Your task to perform on an android device: Set an alarm for 12pm Image 0: 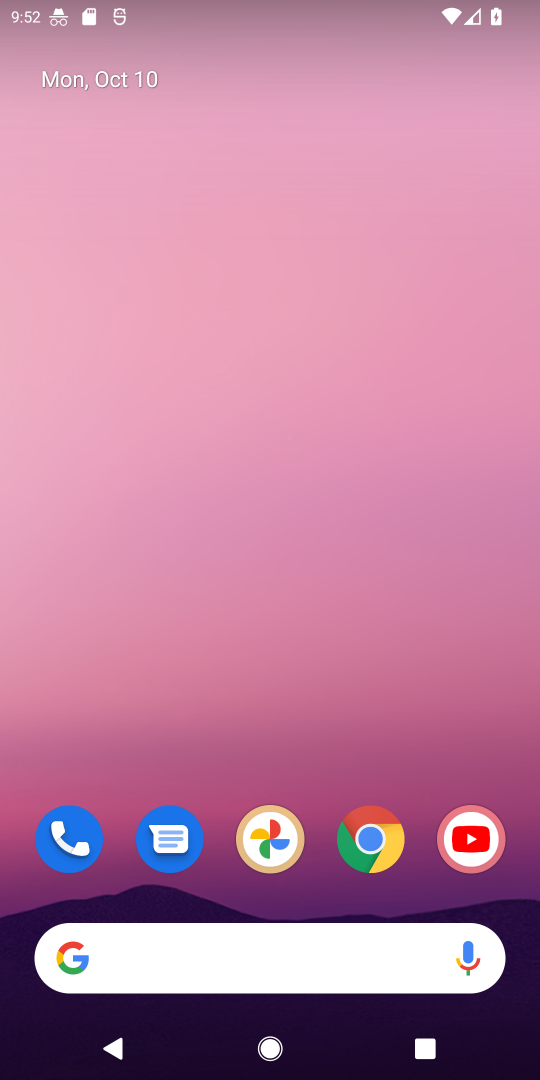
Step 0: drag from (328, 883) to (311, 37)
Your task to perform on an android device: Set an alarm for 12pm Image 1: 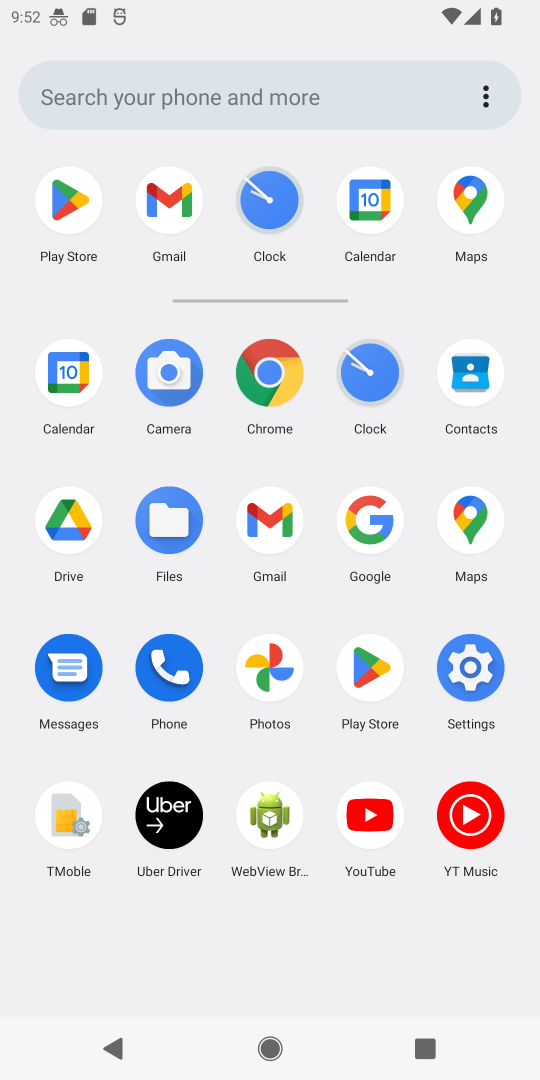
Step 1: click (372, 394)
Your task to perform on an android device: Set an alarm for 12pm Image 2: 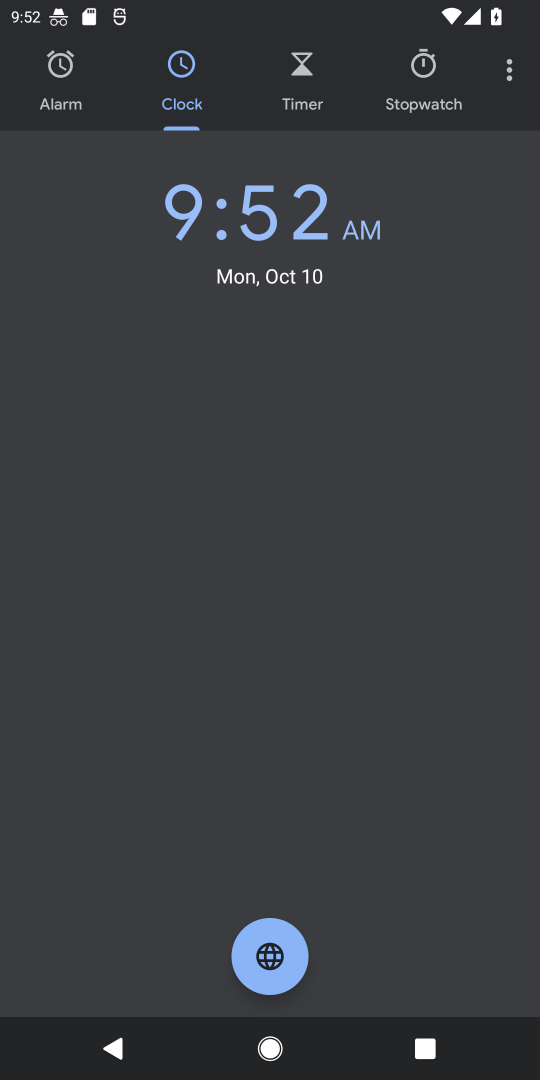
Step 2: click (67, 103)
Your task to perform on an android device: Set an alarm for 12pm Image 3: 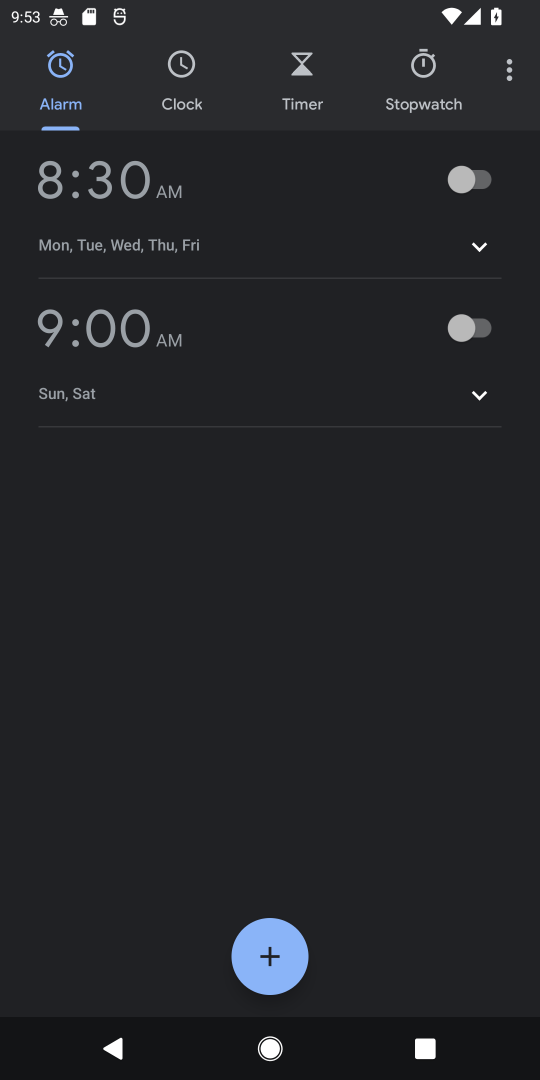
Step 3: click (253, 967)
Your task to perform on an android device: Set an alarm for 12pm Image 4: 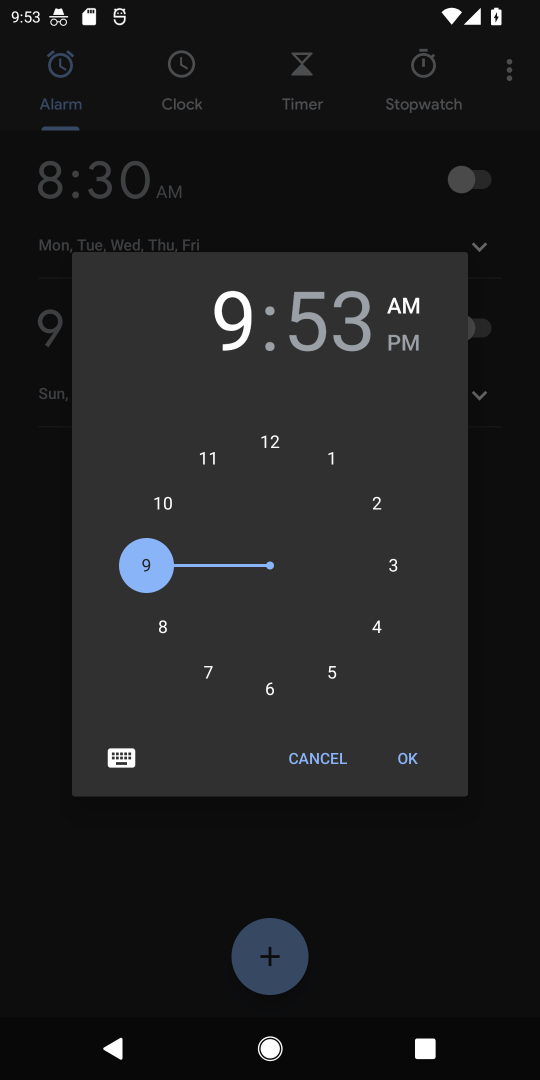
Step 4: click (269, 428)
Your task to perform on an android device: Set an alarm for 12pm Image 5: 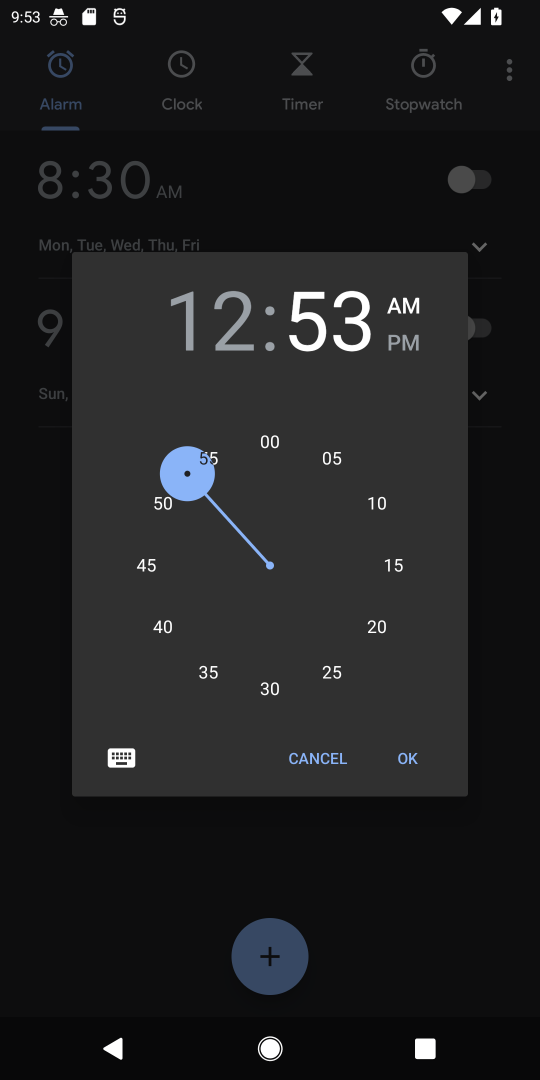
Step 5: click (269, 445)
Your task to perform on an android device: Set an alarm for 12pm Image 6: 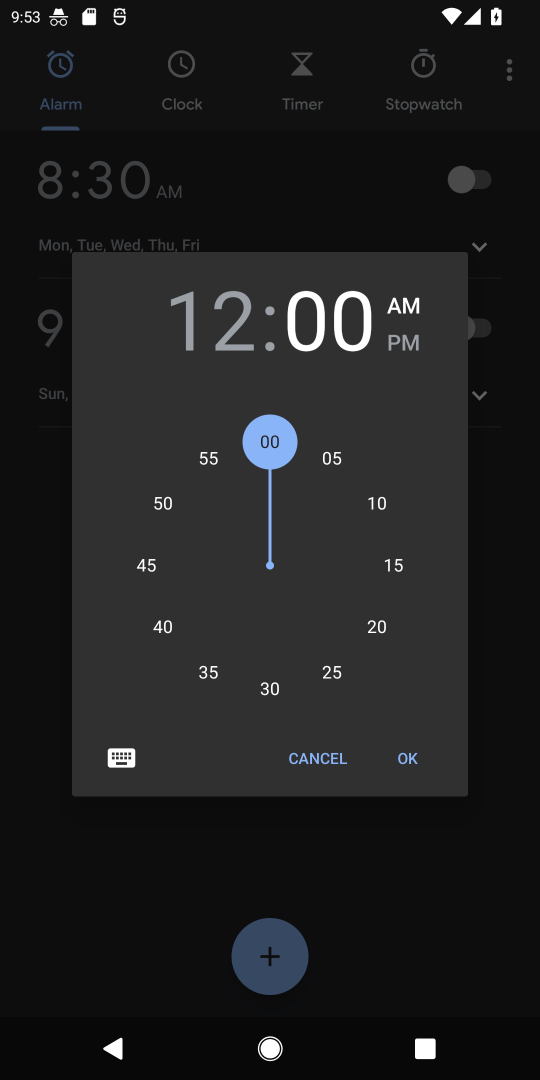
Step 6: click (391, 344)
Your task to perform on an android device: Set an alarm for 12pm Image 7: 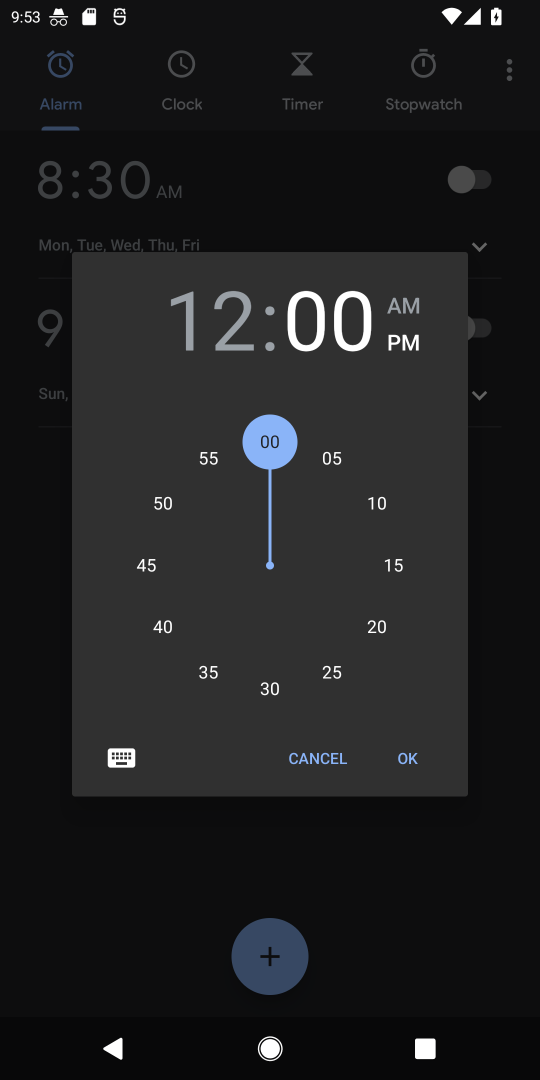
Step 7: task complete